Your task to perform on an android device: Open internet settings Image 0: 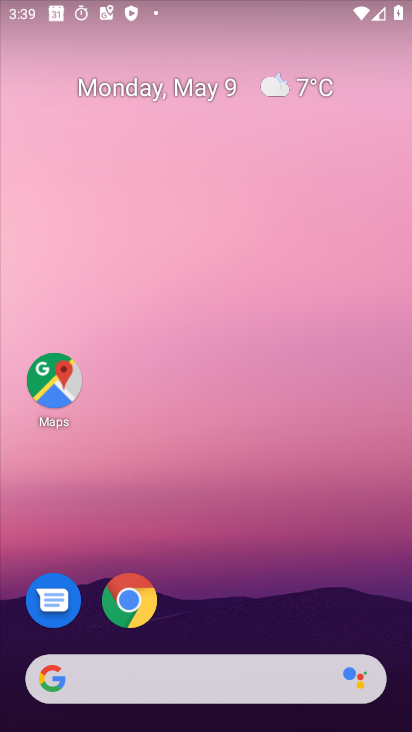
Step 0: drag from (249, 629) to (140, 139)
Your task to perform on an android device: Open internet settings Image 1: 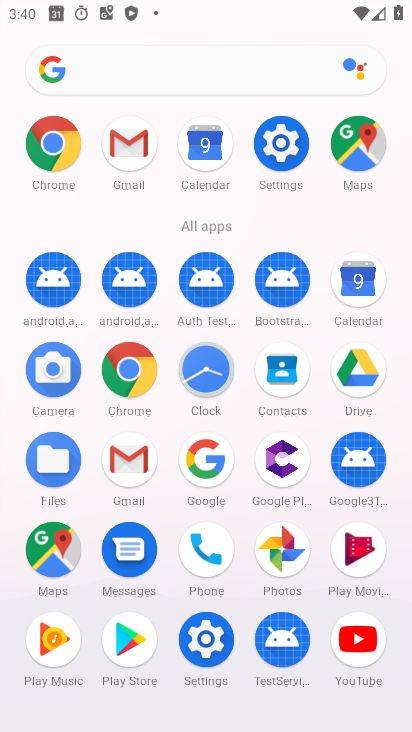
Step 1: click (285, 140)
Your task to perform on an android device: Open internet settings Image 2: 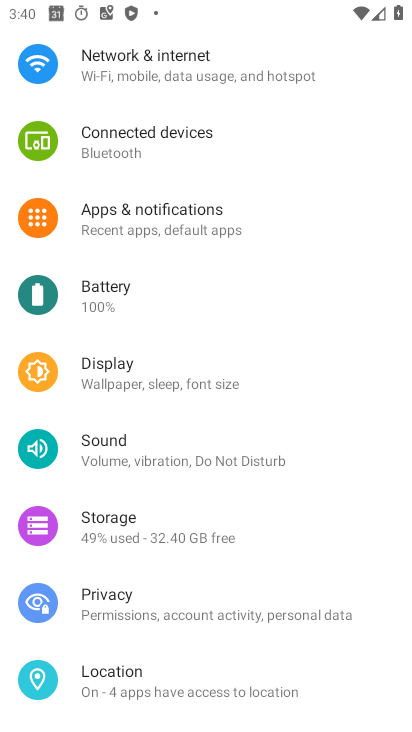
Step 2: drag from (195, 93) to (236, 451)
Your task to perform on an android device: Open internet settings Image 3: 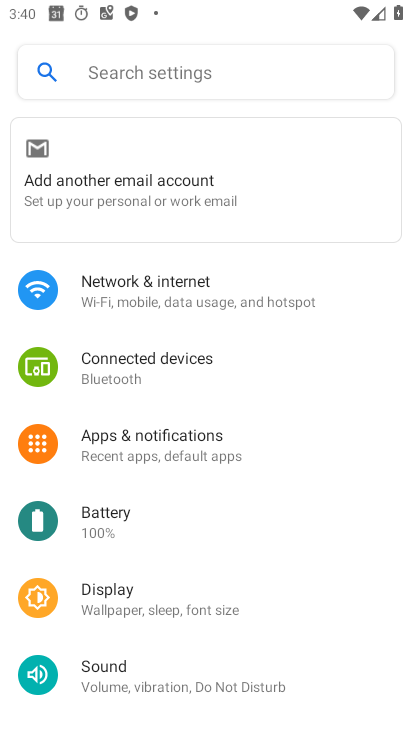
Step 3: click (153, 289)
Your task to perform on an android device: Open internet settings Image 4: 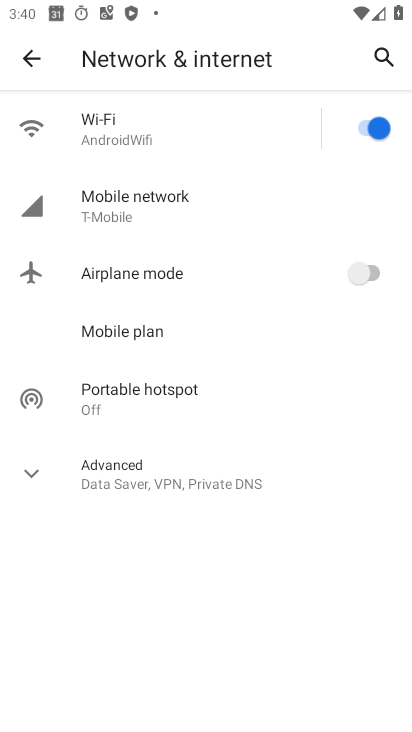
Step 4: task complete